Your task to perform on an android device: turn on javascript in the chrome app Image 0: 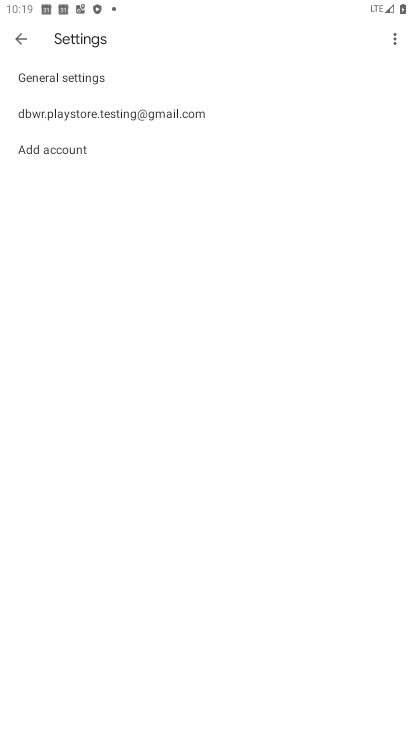
Step 0: click (26, 36)
Your task to perform on an android device: turn on javascript in the chrome app Image 1: 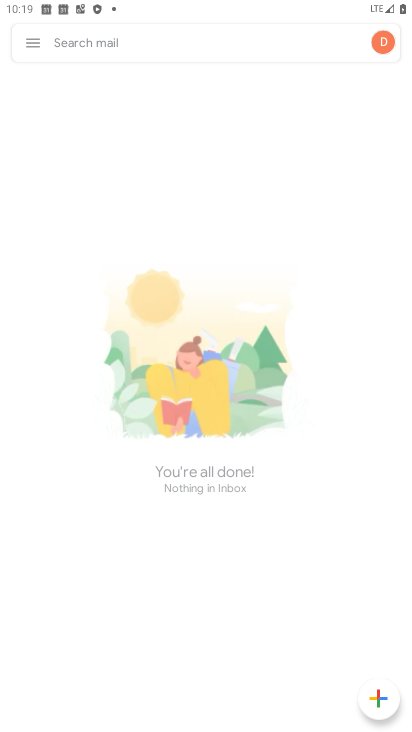
Step 1: press home button
Your task to perform on an android device: turn on javascript in the chrome app Image 2: 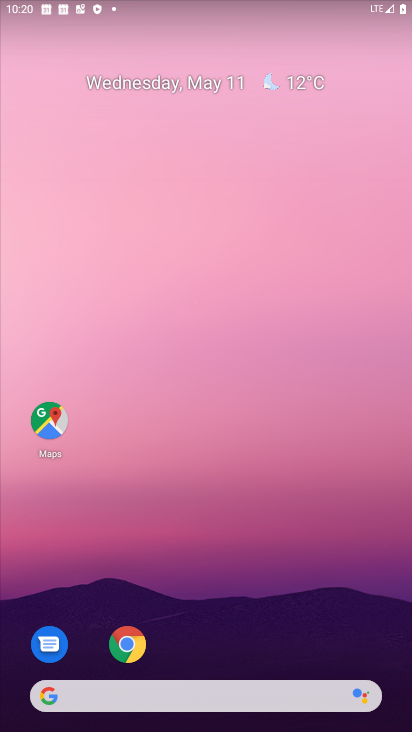
Step 2: click (129, 662)
Your task to perform on an android device: turn on javascript in the chrome app Image 3: 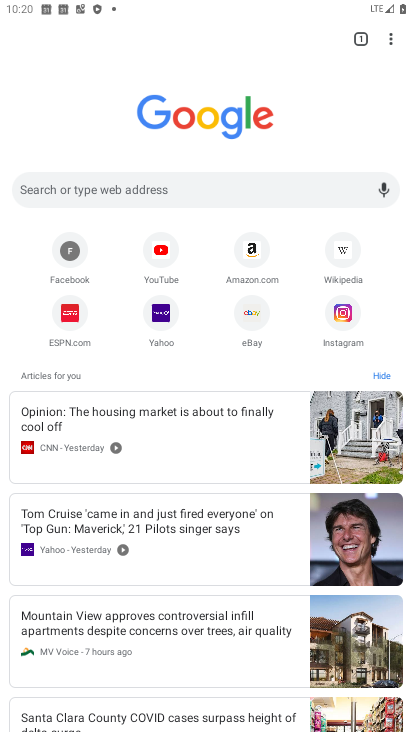
Step 3: click (394, 34)
Your task to perform on an android device: turn on javascript in the chrome app Image 4: 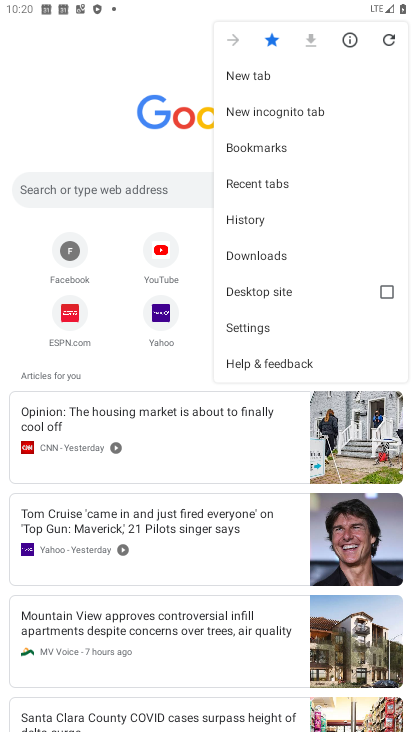
Step 4: click (278, 318)
Your task to perform on an android device: turn on javascript in the chrome app Image 5: 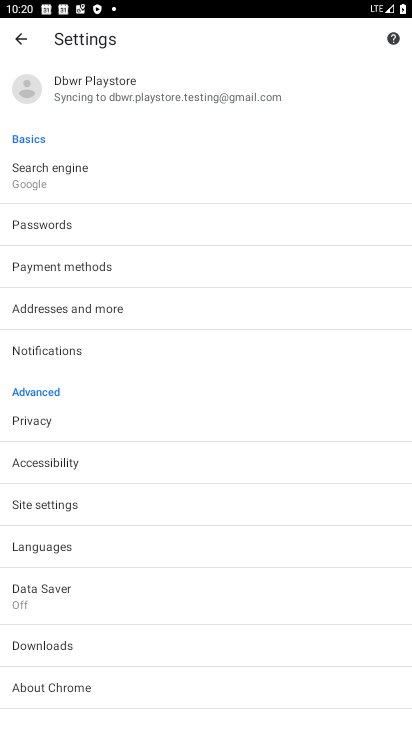
Step 5: click (129, 494)
Your task to perform on an android device: turn on javascript in the chrome app Image 6: 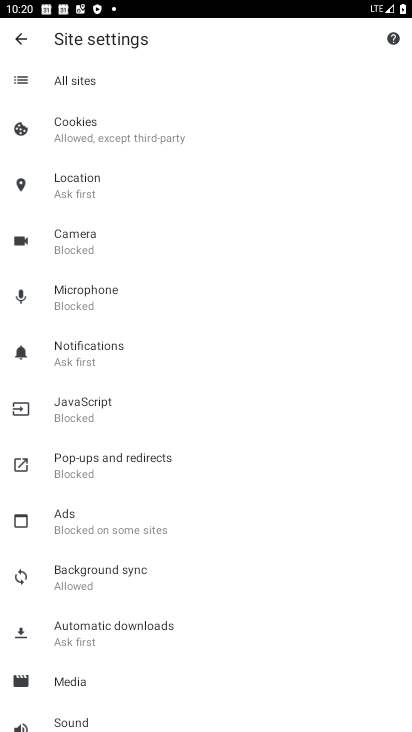
Step 6: click (125, 415)
Your task to perform on an android device: turn on javascript in the chrome app Image 7: 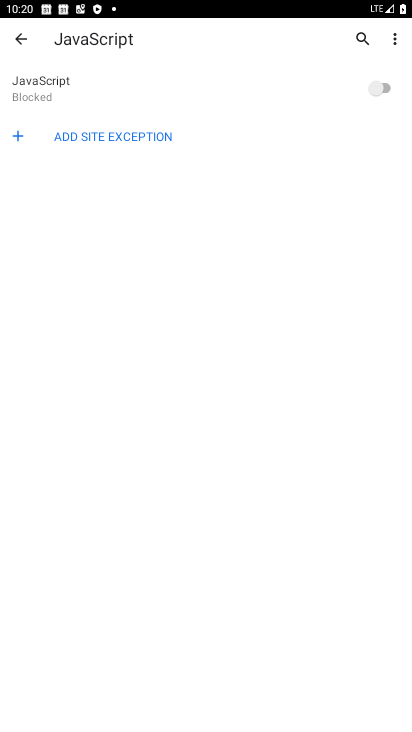
Step 7: click (369, 91)
Your task to perform on an android device: turn on javascript in the chrome app Image 8: 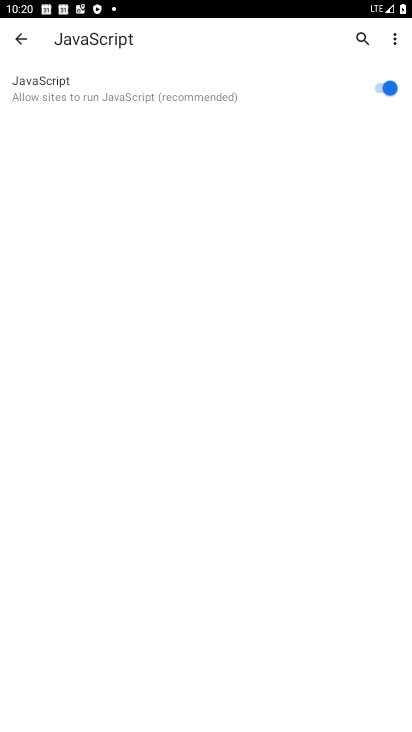
Step 8: task complete